Your task to perform on an android device: Search for sushi restaurants on Maps Image 0: 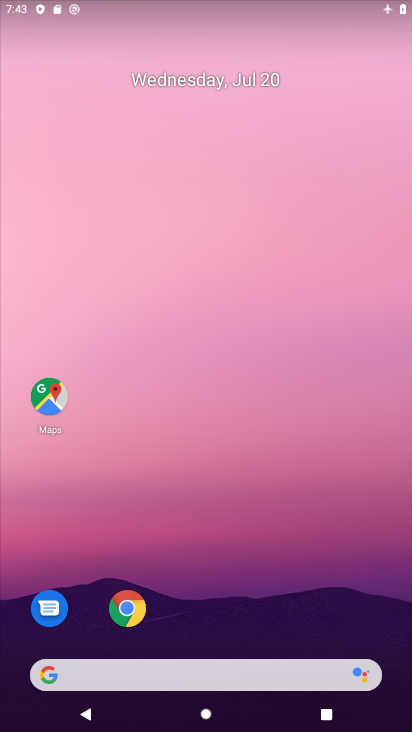
Step 0: drag from (197, 645) to (203, 199)
Your task to perform on an android device: Search for sushi restaurants on Maps Image 1: 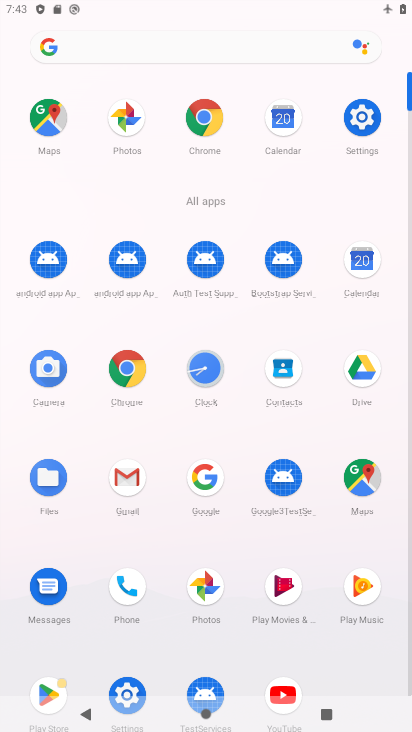
Step 1: click (46, 118)
Your task to perform on an android device: Search for sushi restaurants on Maps Image 2: 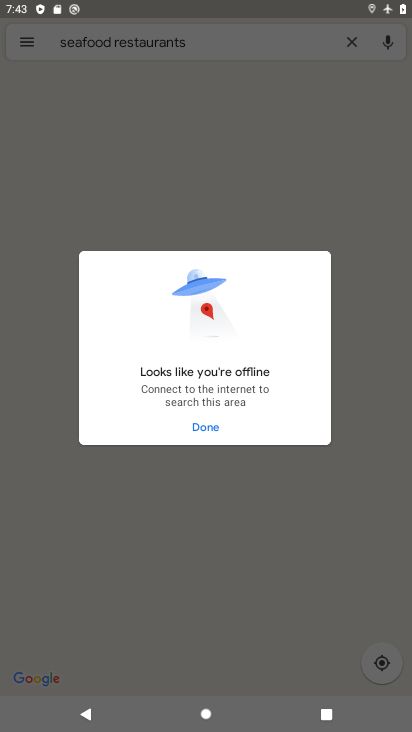
Step 2: click (216, 439)
Your task to perform on an android device: Search for sushi restaurants on Maps Image 3: 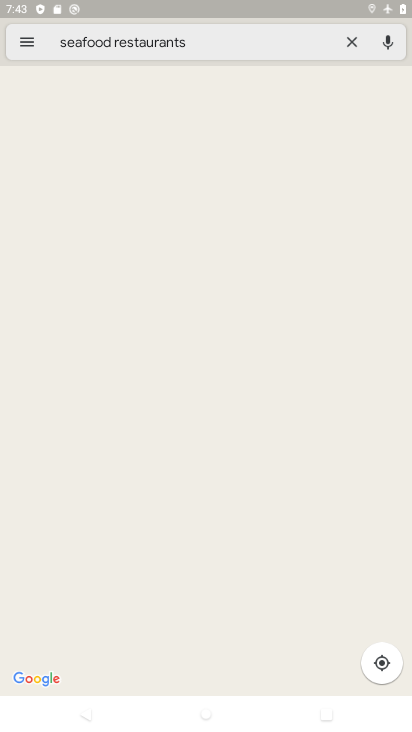
Step 3: click (355, 35)
Your task to perform on an android device: Search for sushi restaurants on Maps Image 4: 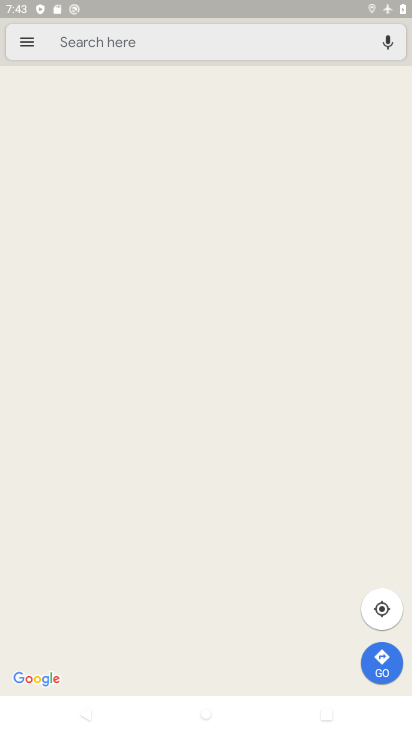
Step 4: click (274, 34)
Your task to perform on an android device: Search for sushi restaurants on Maps Image 5: 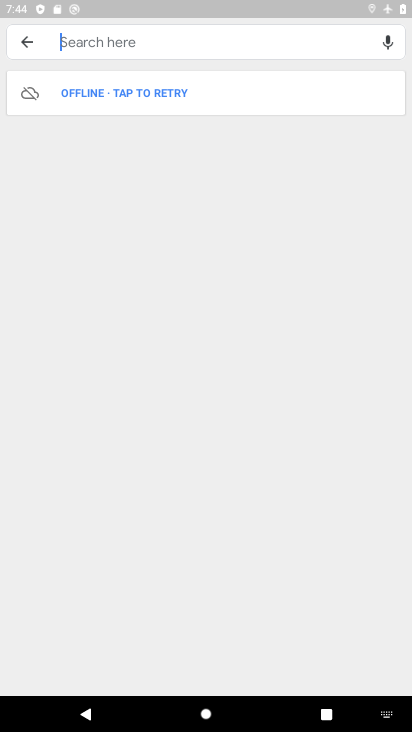
Step 5: type "sushi restaurants"
Your task to perform on an android device: Search for sushi restaurants on Maps Image 6: 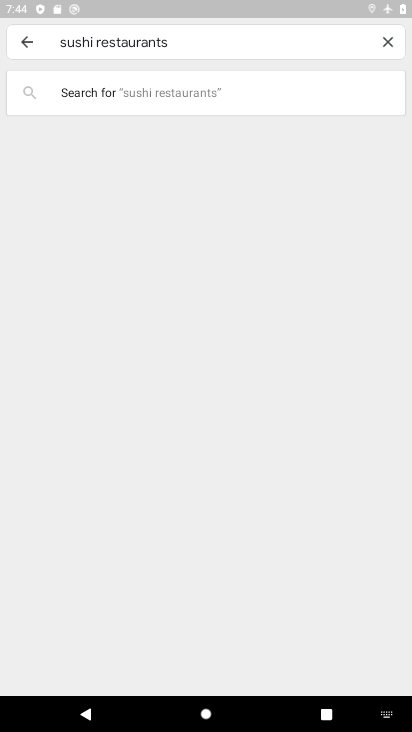
Step 6: click (171, 103)
Your task to perform on an android device: Search for sushi restaurants on Maps Image 7: 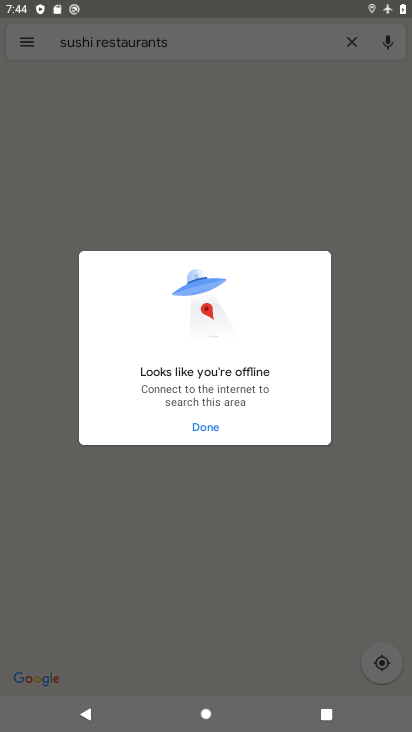
Step 7: task complete